Your task to perform on an android device: Open Chrome and go to settings Image 0: 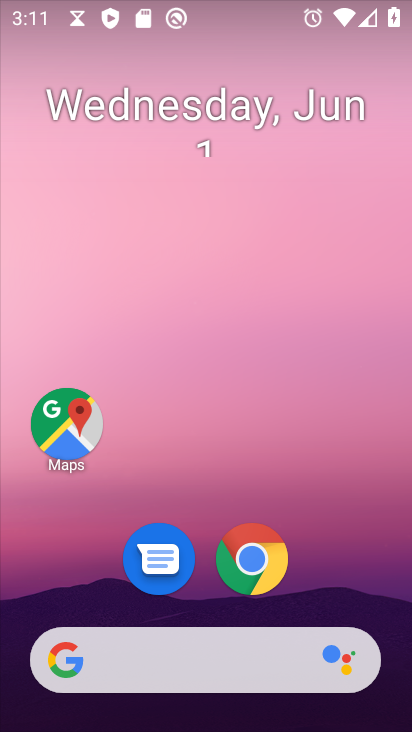
Step 0: click (256, 554)
Your task to perform on an android device: Open Chrome and go to settings Image 1: 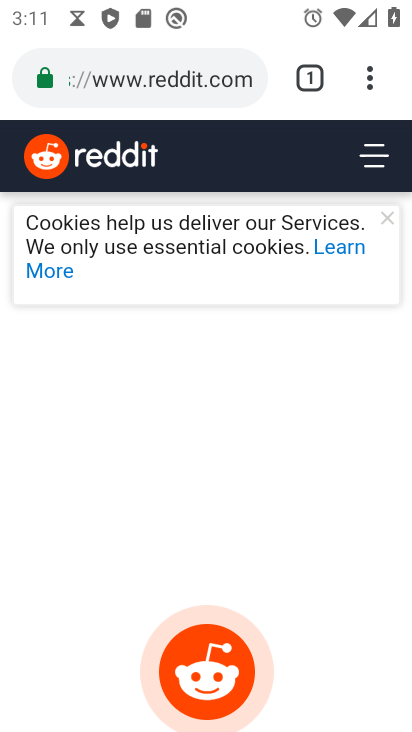
Step 1: click (378, 75)
Your task to perform on an android device: Open Chrome and go to settings Image 2: 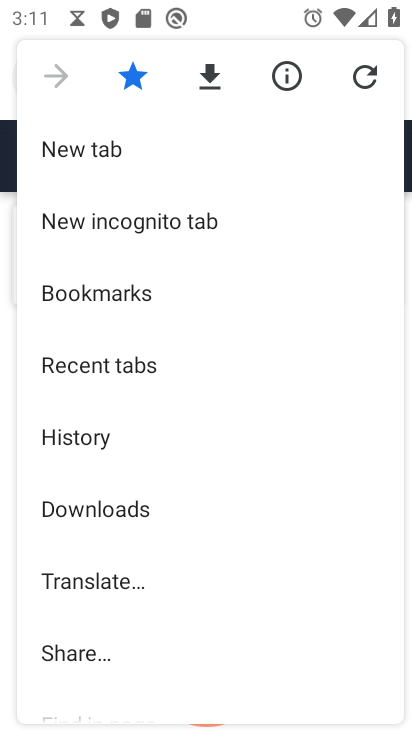
Step 2: drag from (238, 597) to (217, 124)
Your task to perform on an android device: Open Chrome and go to settings Image 3: 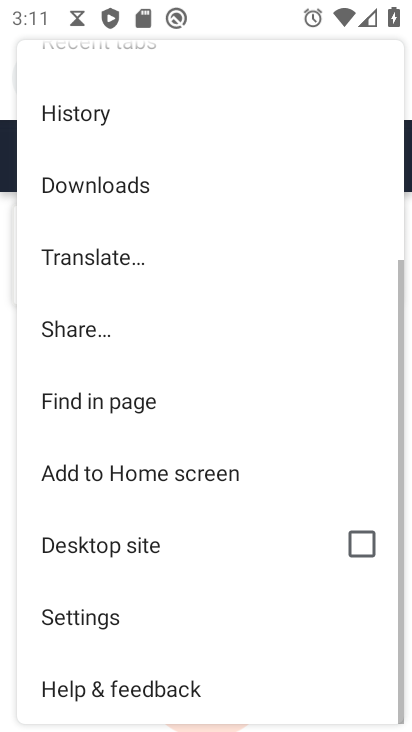
Step 3: click (97, 606)
Your task to perform on an android device: Open Chrome and go to settings Image 4: 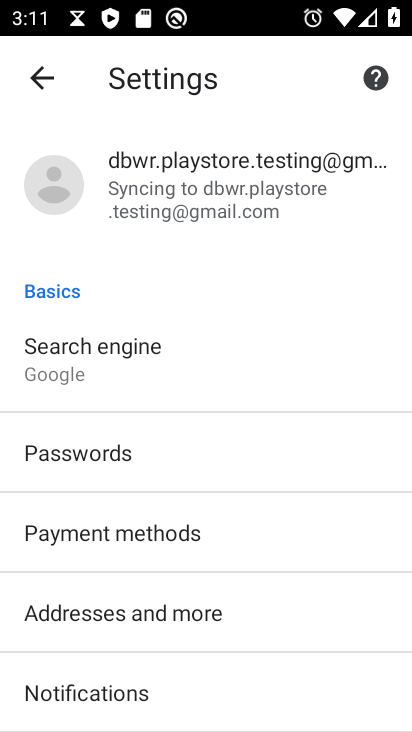
Step 4: task complete